Your task to perform on an android device: Go to sound settings Image 0: 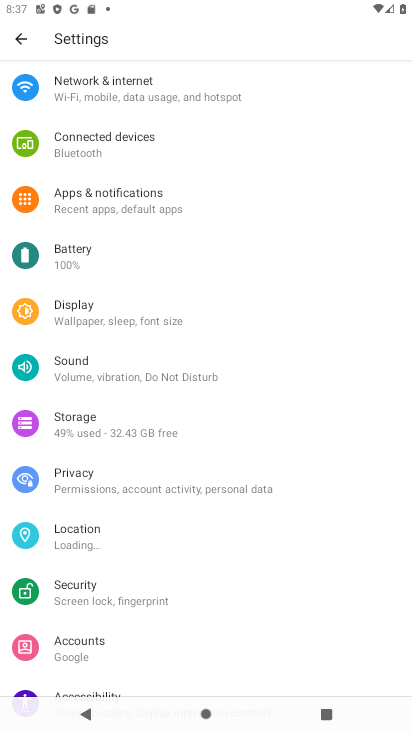
Step 0: click (72, 362)
Your task to perform on an android device: Go to sound settings Image 1: 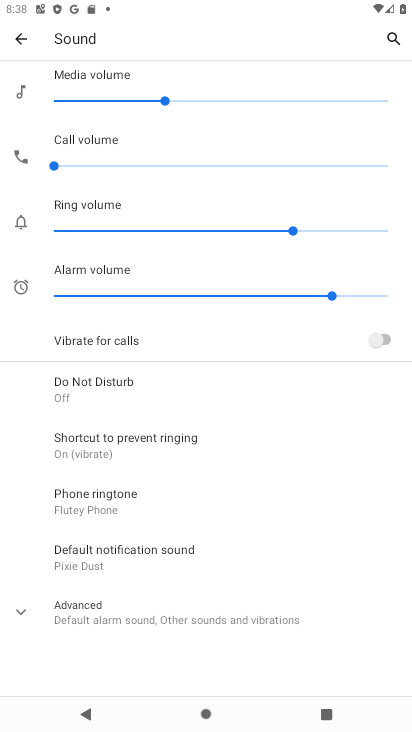
Step 1: task complete